Your task to perform on an android device: Do I have any events this weekend? Image 0: 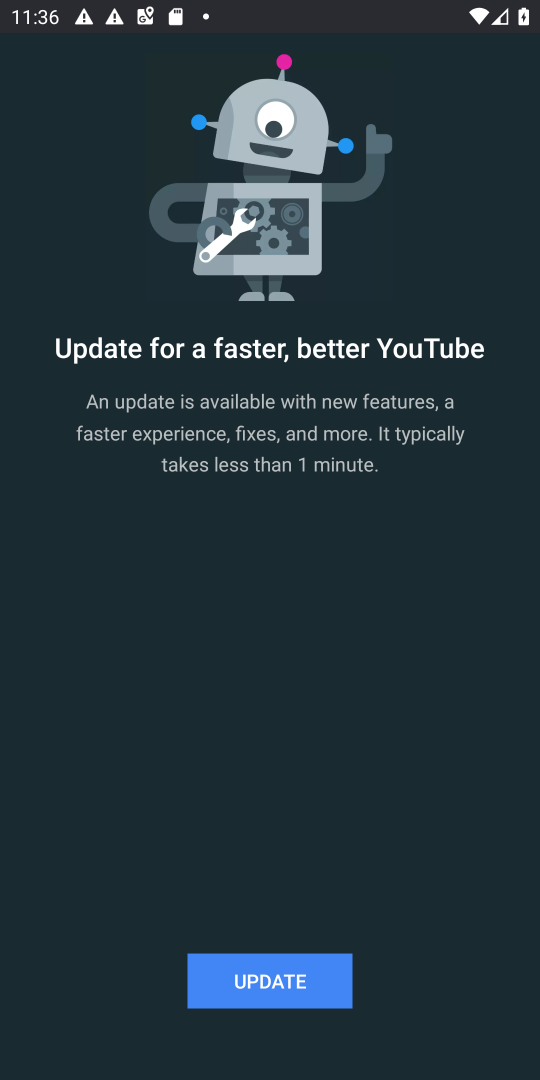
Step 0: press home button
Your task to perform on an android device: Do I have any events this weekend? Image 1: 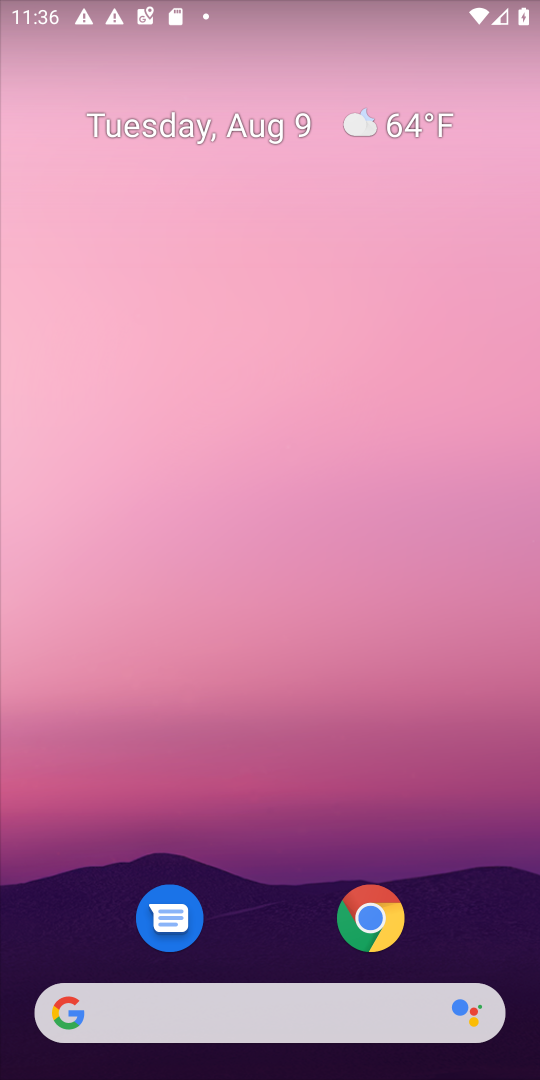
Step 1: drag from (459, 631) to (459, 174)
Your task to perform on an android device: Do I have any events this weekend? Image 2: 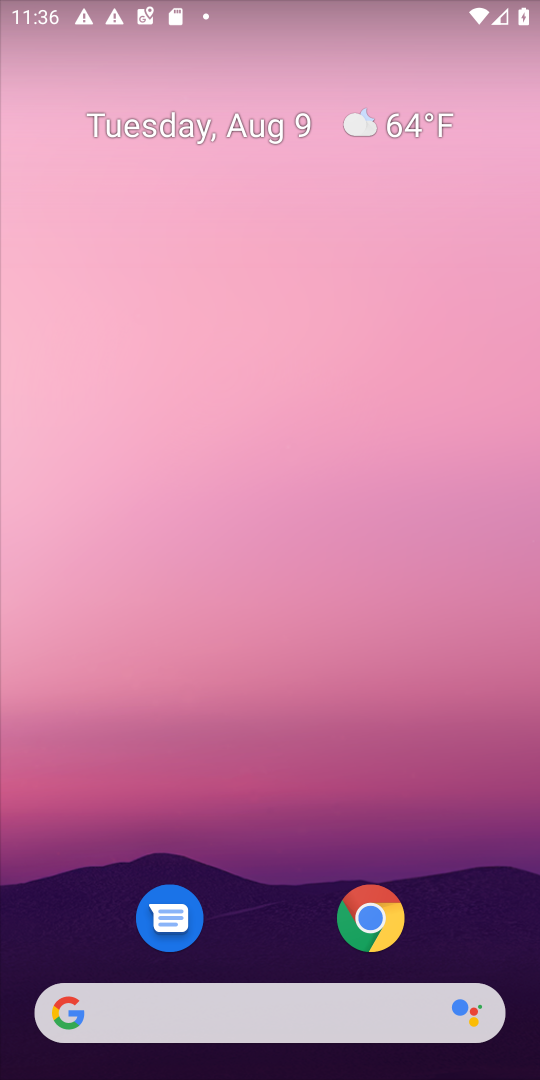
Step 2: drag from (259, 878) to (369, 218)
Your task to perform on an android device: Do I have any events this weekend? Image 3: 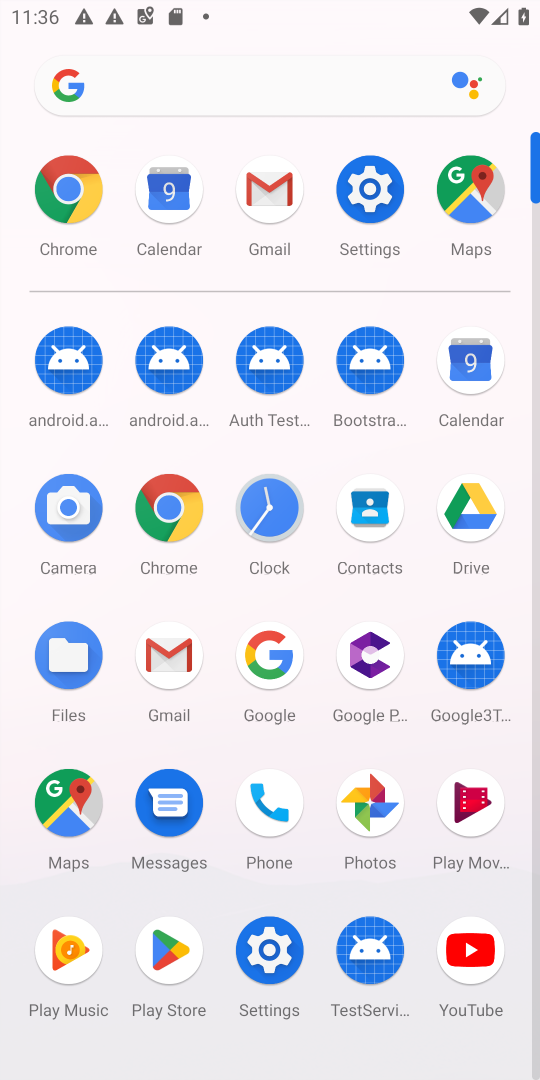
Step 3: click (482, 360)
Your task to perform on an android device: Do I have any events this weekend? Image 4: 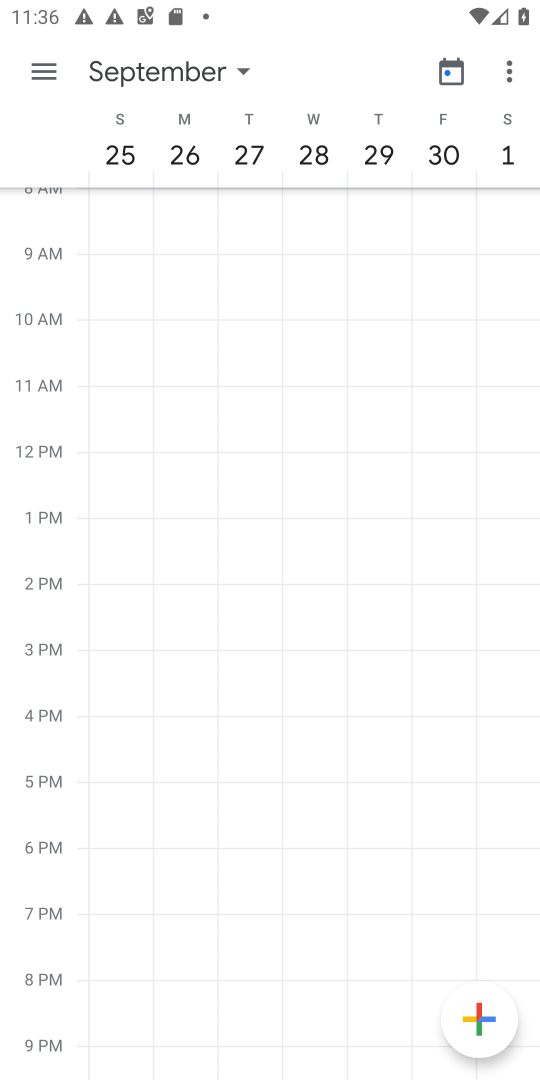
Step 4: click (163, 47)
Your task to perform on an android device: Do I have any events this weekend? Image 5: 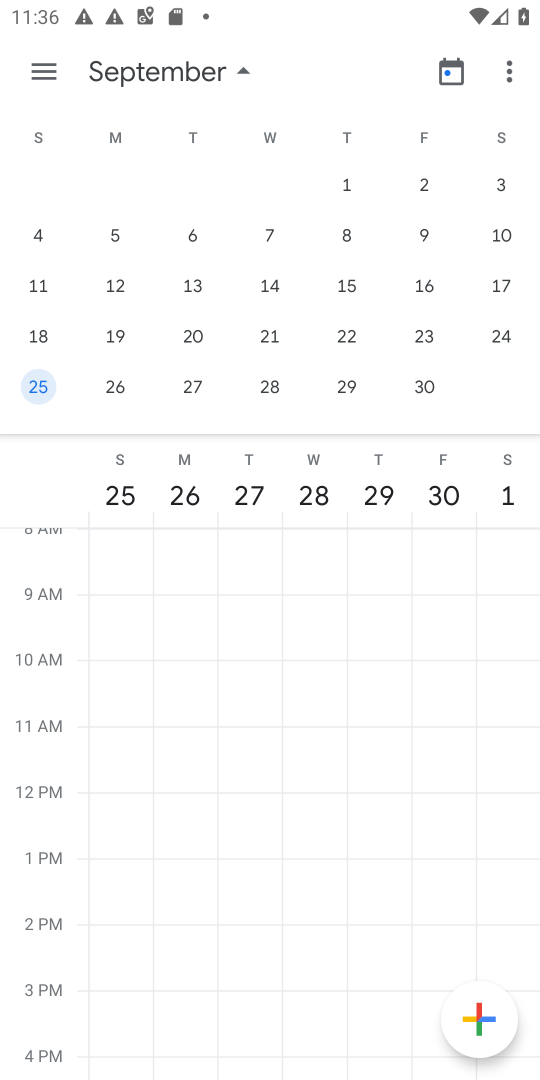
Step 5: drag from (52, 305) to (538, 323)
Your task to perform on an android device: Do I have any events this weekend? Image 6: 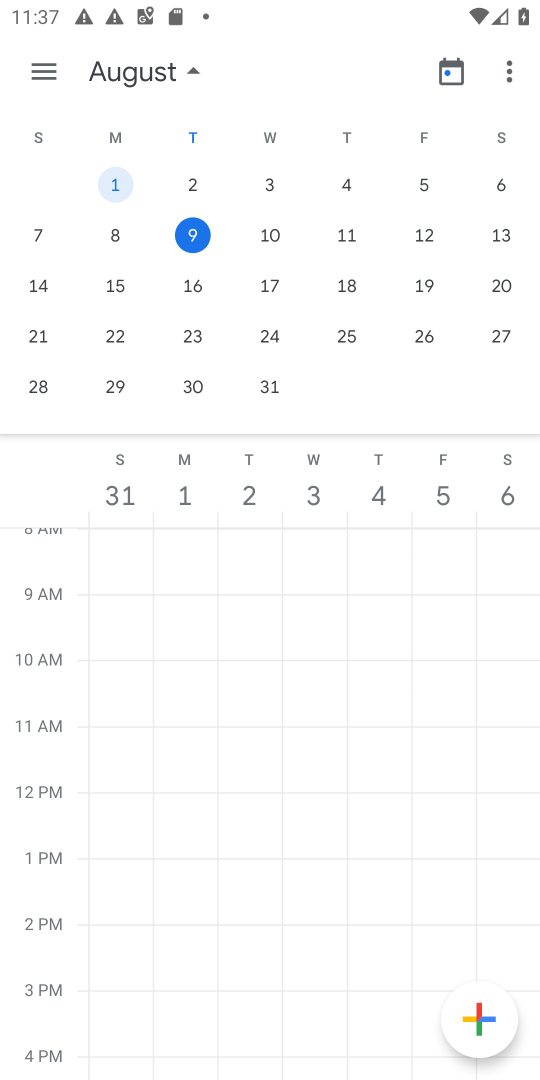
Step 6: click (198, 282)
Your task to perform on an android device: Do I have any events this weekend? Image 7: 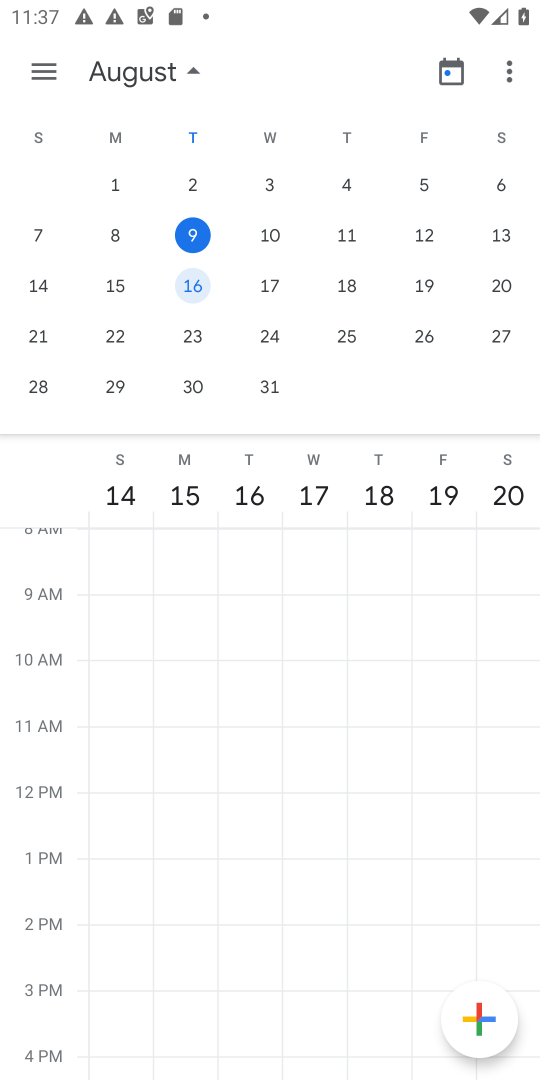
Step 7: click (195, 238)
Your task to perform on an android device: Do I have any events this weekend? Image 8: 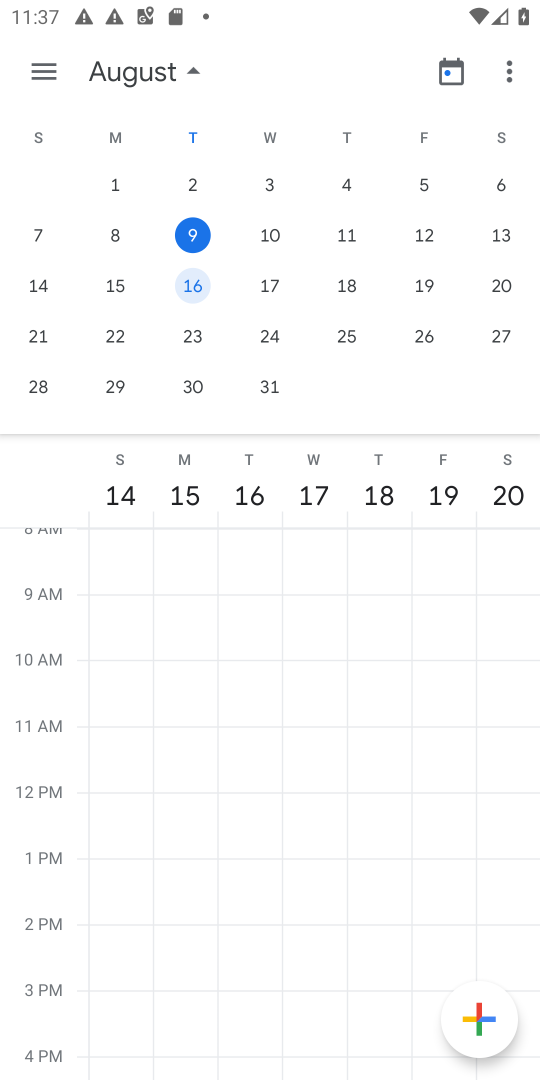
Step 8: click (195, 238)
Your task to perform on an android device: Do I have any events this weekend? Image 9: 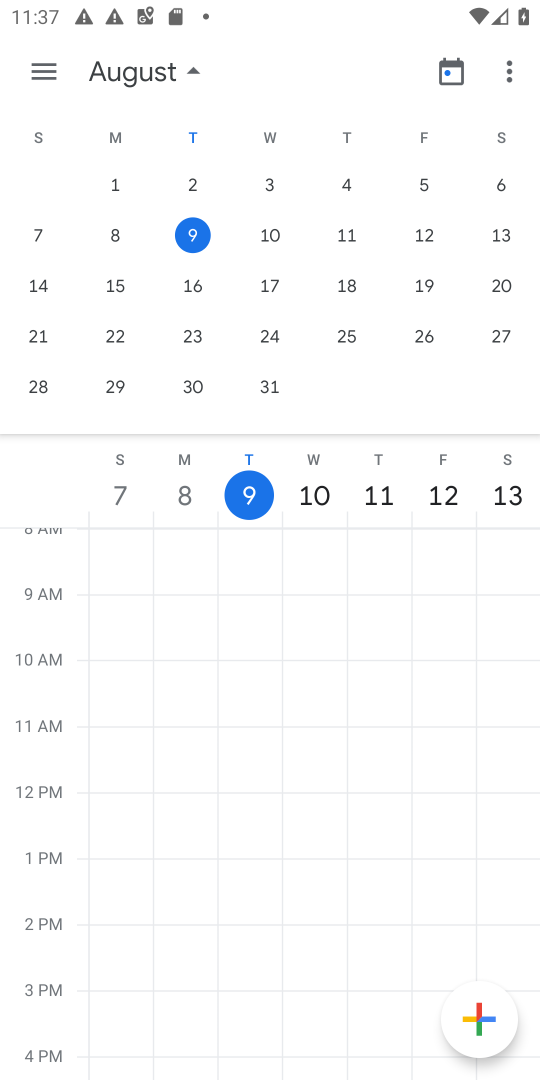
Step 9: task complete